Your task to perform on an android device: empty trash in the gmail app Image 0: 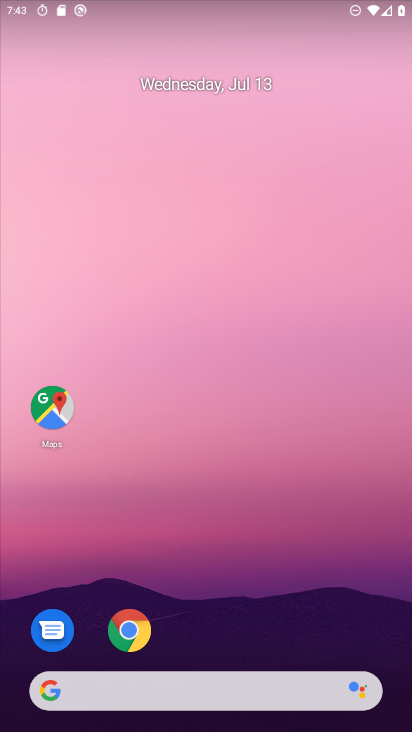
Step 0: drag from (390, 636) to (229, 1)
Your task to perform on an android device: empty trash in the gmail app Image 1: 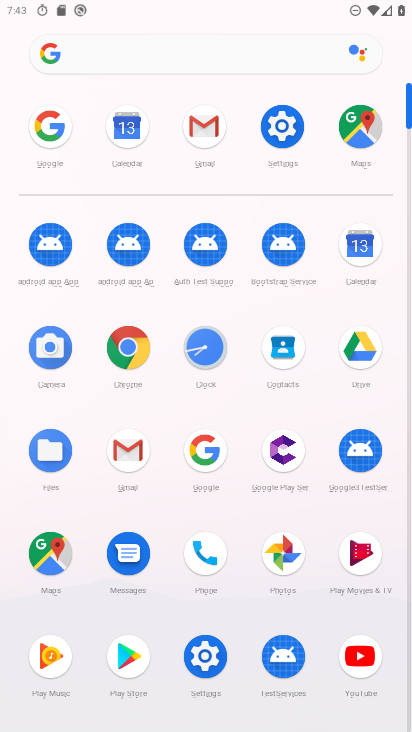
Step 1: click (208, 114)
Your task to perform on an android device: empty trash in the gmail app Image 2: 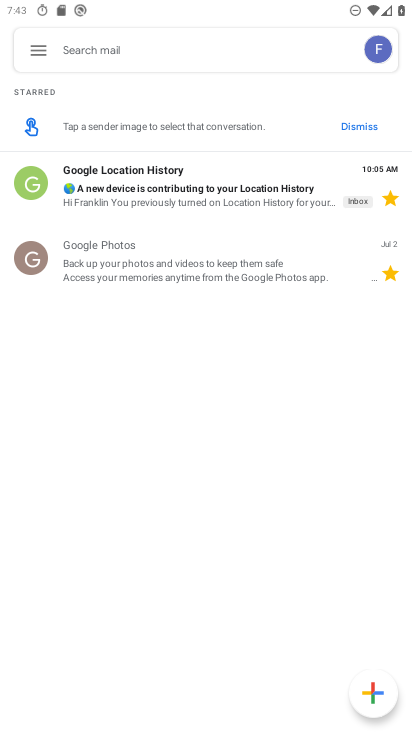
Step 2: click (43, 52)
Your task to perform on an android device: empty trash in the gmail app Image 3: 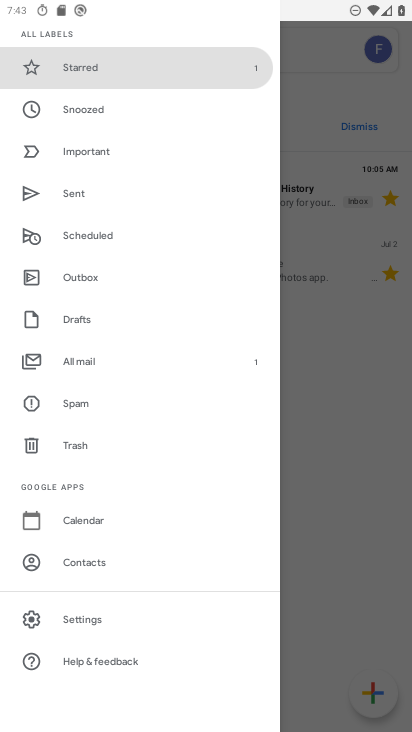
Step 3: click (67, 450)
Your task to perform on an android device: empty trash in the gmail app Image 4: 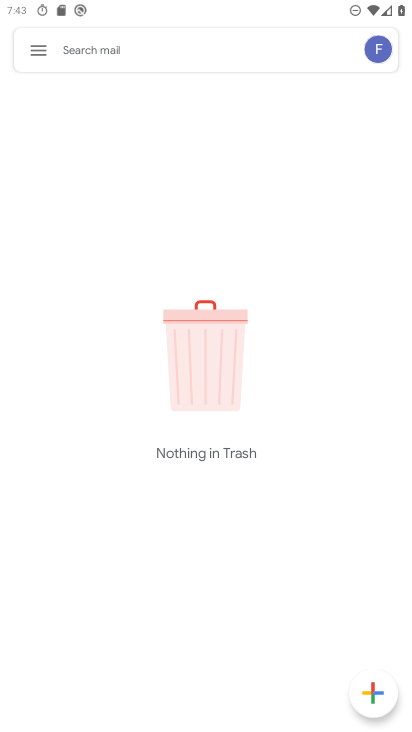
Step 4: task complete